Your task to perform on an android device: change alarm snooze length Image 0: 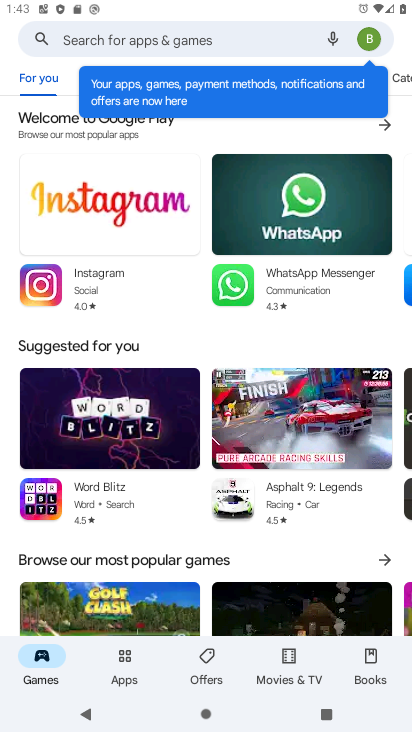
Step 0: press home button
Your task to perform on an android device: change alarm snooze length Image 1: 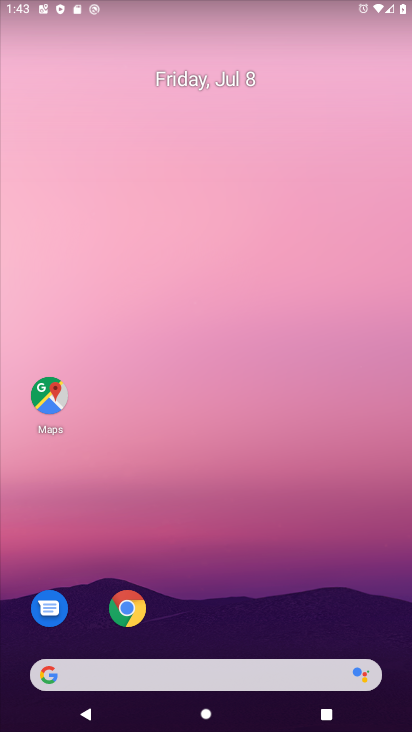
Step 1: drag from (272, 589) to (256, 14)
Your task to perform on an android device: change alarm snooze length Image 2: 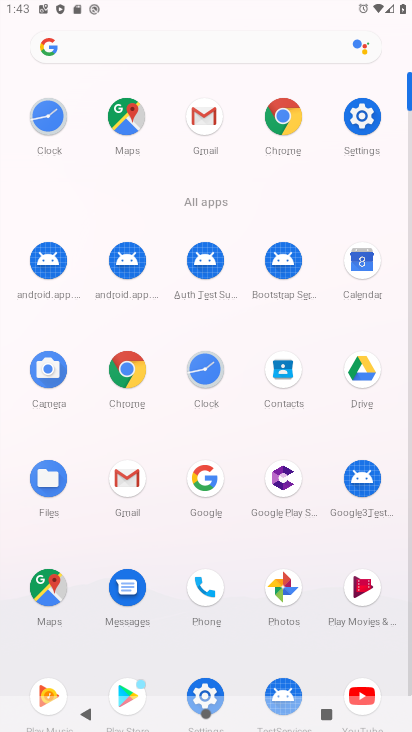
Step 2: click (202, 376)
Your task to perform on an android device: change alarm snooze length Image 3: 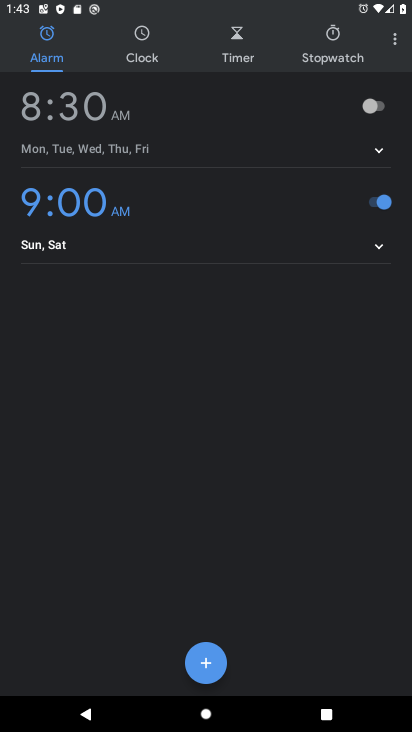
Step 3: click (386, 43)
Your task to perform on an android device: change alarm snooze length Image 4: 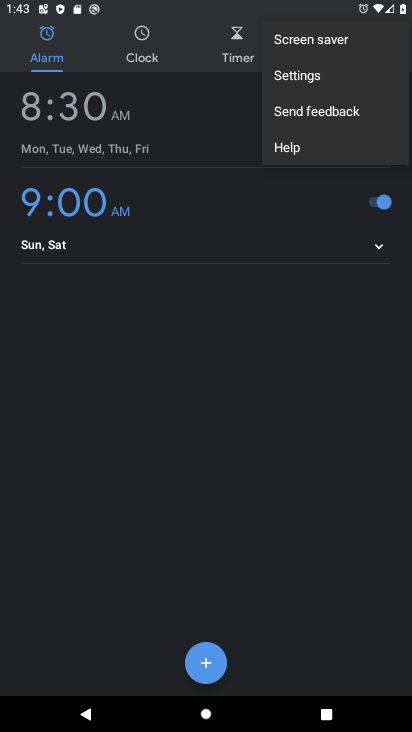
Step 4: click (338, 78)
Your task to perform on an android device: change alarm snooze length Image 5: 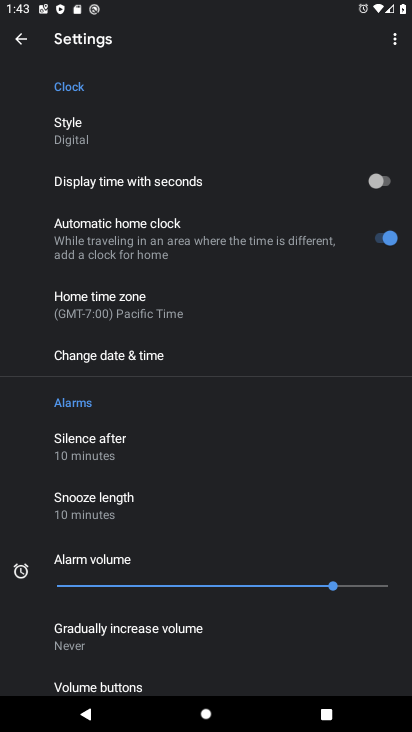
Step 5: click (112, 506)
Your task to perform on an android device: change alarm snooze length Image 6: 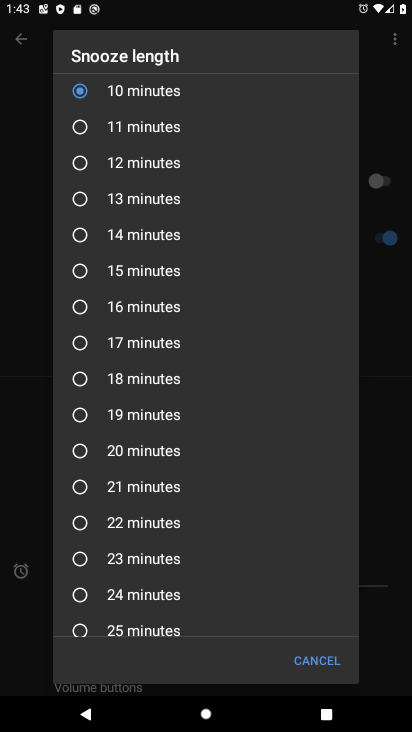
Step 6: click (111, 515)
Your task to perform on an android device: change alarm snooze length Image 7: 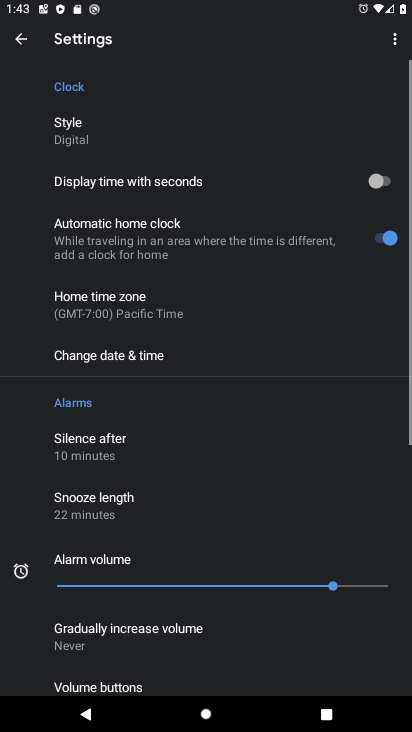
Step 7: task complete